Your task to perform on an android device: Go to Wikipedia Image 0: 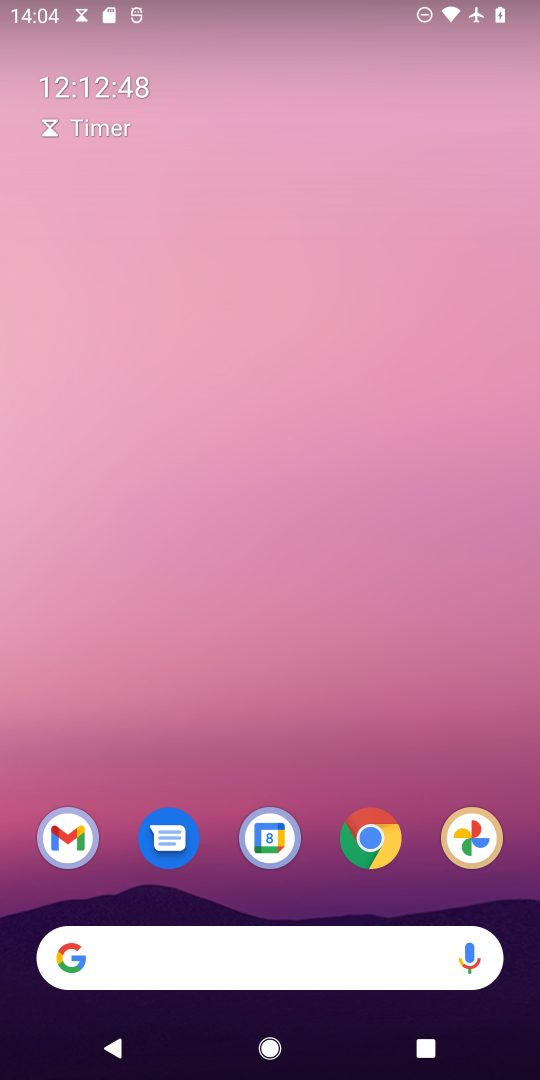
Step 0: press home button
Your task to perform on an android device: Go to Wikipedia Image 1: 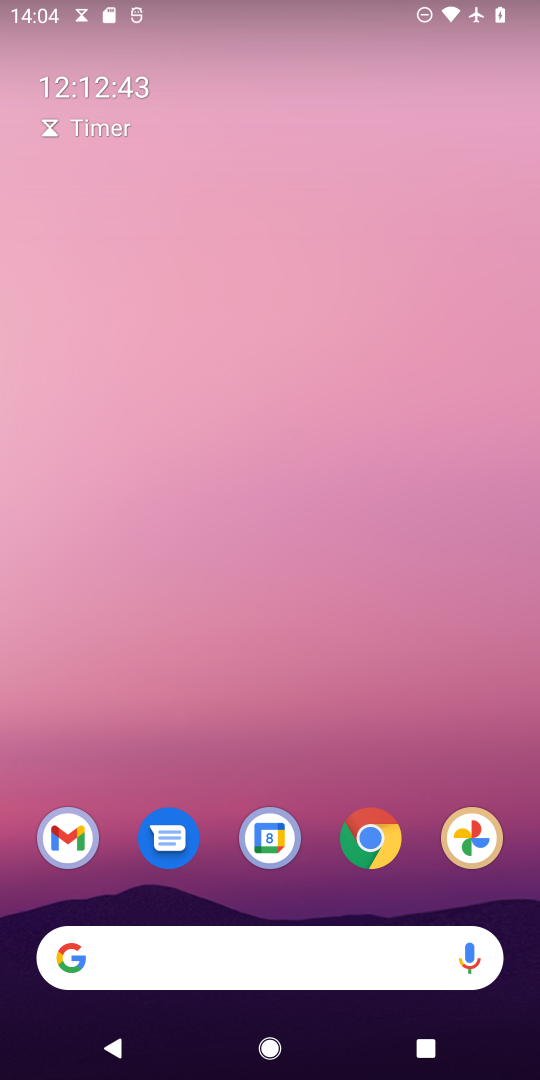
Step 1: press home button
Your task to perform on an android device: Go to Wikipedia Image 2: 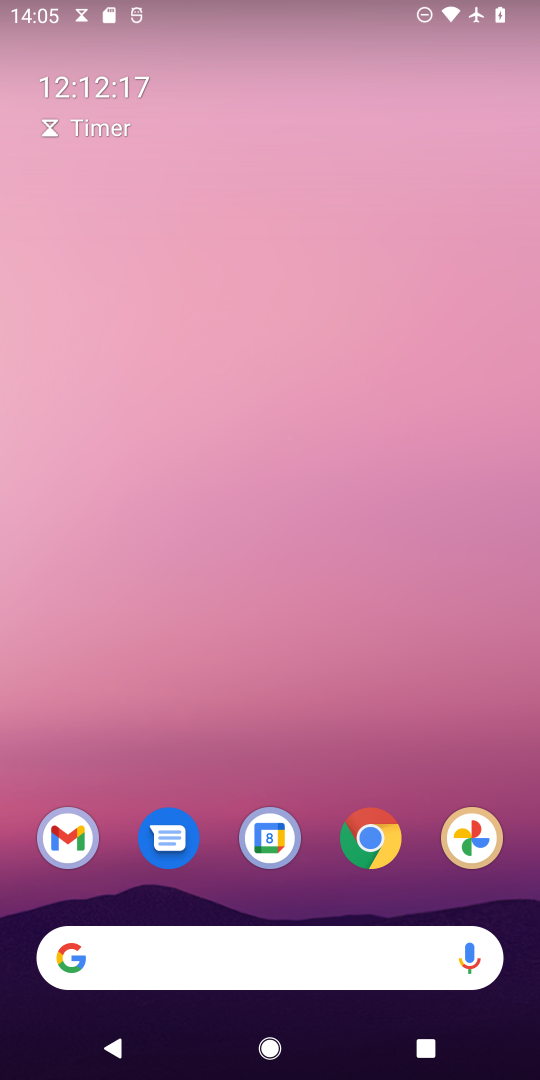
Step 2: click (71, 968)
Your task to perform on an android device: Go to Wikipedia Image 3: 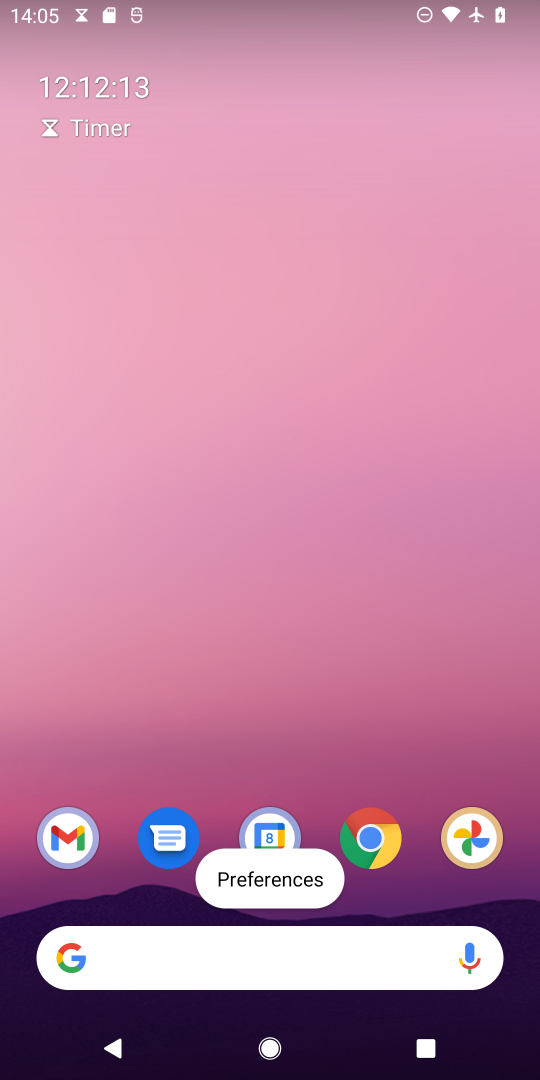
Step 3: click (61, 944)
Your task to perform on an android device: Go to Wikipedia Image 4: 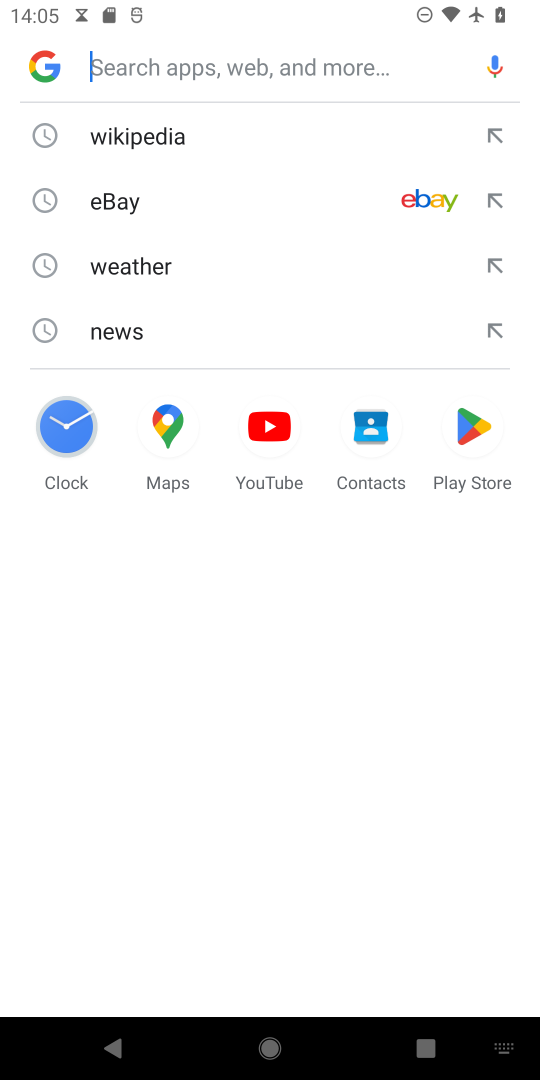
Step 4: click (109, 140)
Your task to perform on an android device: Go to Wikipedia Image 5: 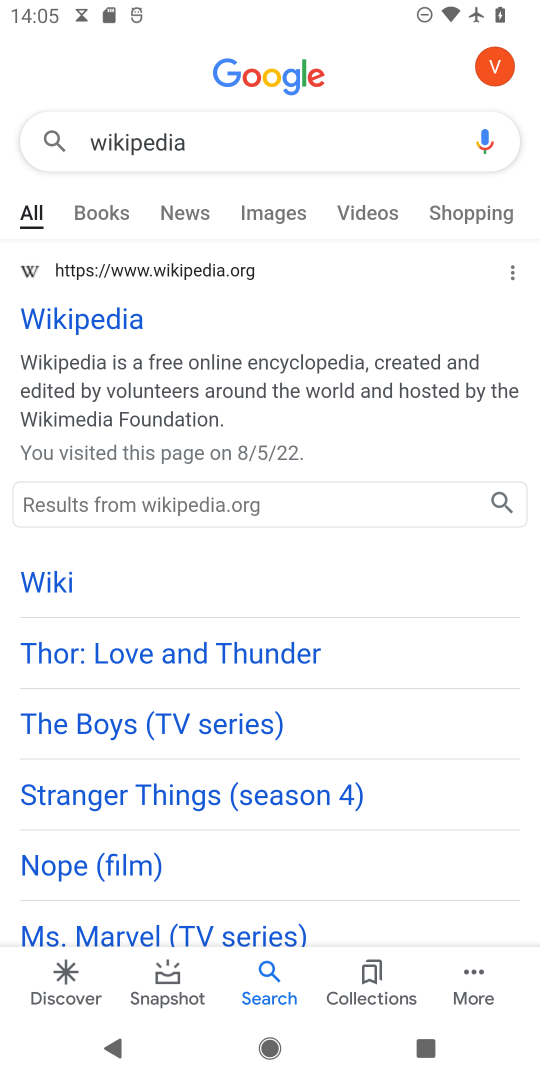
Step 5: click (54, 313)
Your task to perform on an android device: Go to Wikipedia Image 6: 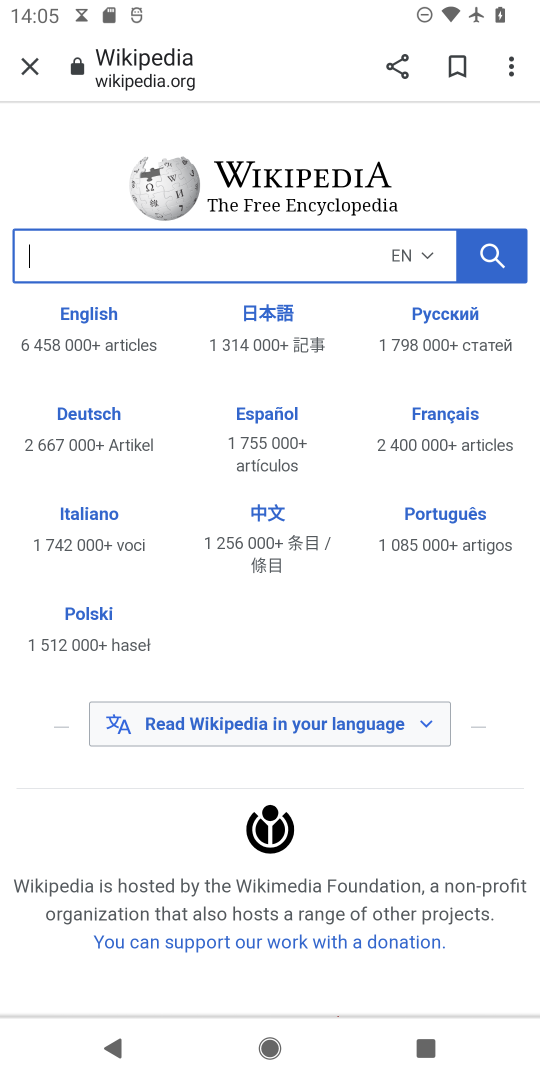
Step 6: task complete